Your task to perform on an android device: turn vacation reply on in the gmail app Image 0: 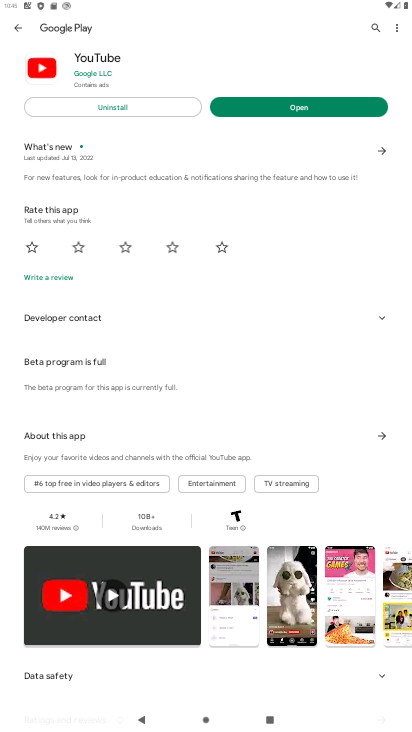
Step 0: press home button
Your task to perform on an android device: turn vacation reply on in the gmail app Image 1: 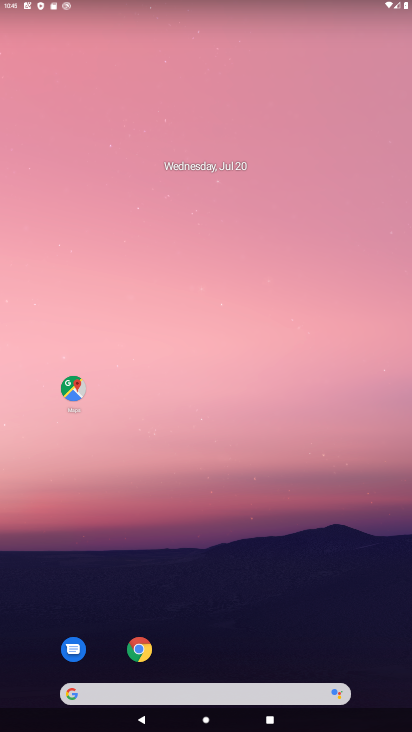
Step 1: drag from (262, 645) to (195, 24)
Your task to perform on an android device: turn vacation reply on in the gmail app Image 2: 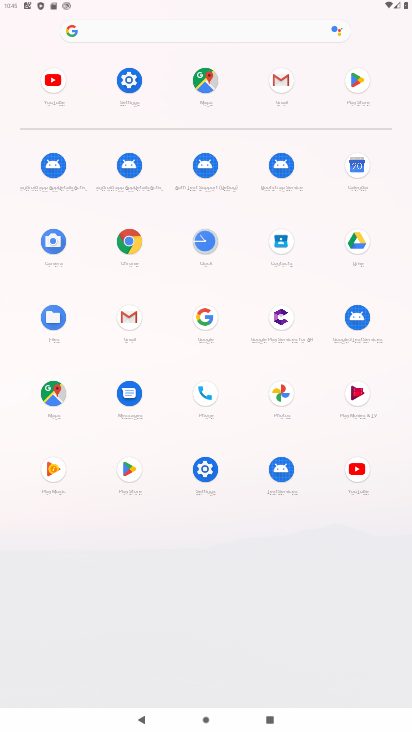
Step 2: click (285, 76)
Your task to perform on an android device: turn vacation reply on in the gmail app Image 3: 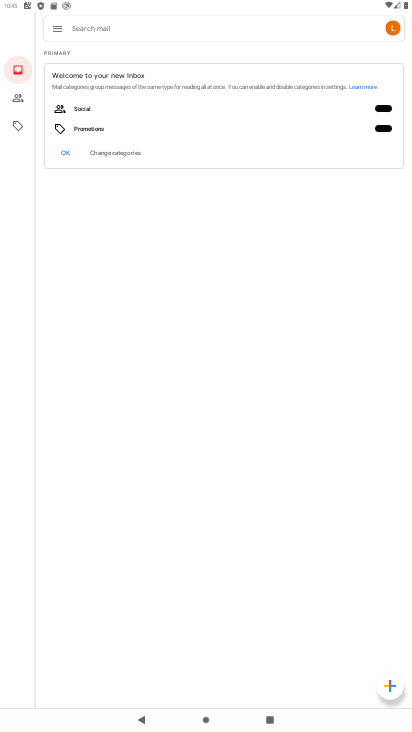
Step 3: click (54, 32)
Your task to perform on an android device: turn vacation reply on in the gmail app Image 4: 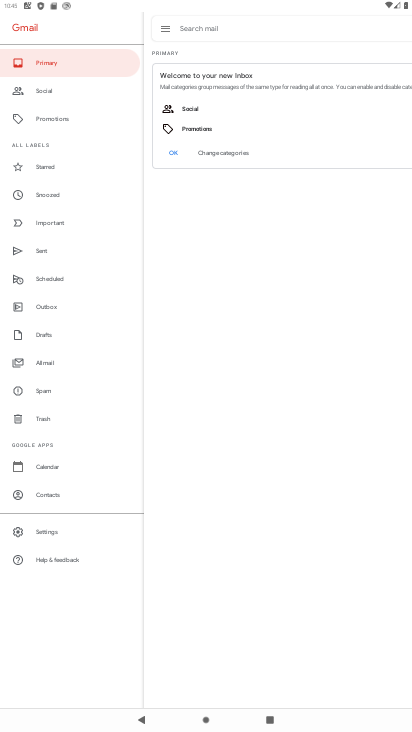
Step 4: click (74, 537)
Your task to perform on an android device: turn vacation reply on in the gmail app Image 5: 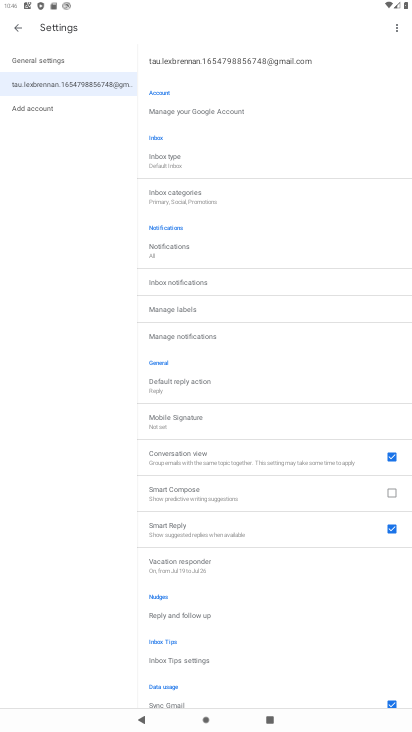
Step 5: click (214, 565)
Your task to perform on an android device: turn vacation reply on in the gmail app Image 6: 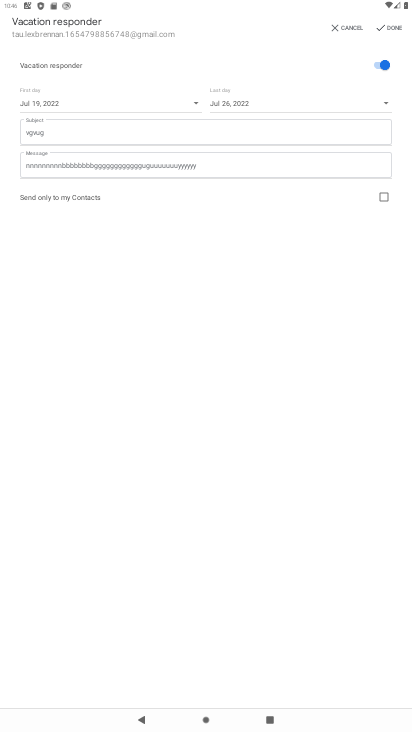
Step 6: task complete